Your task to perform on an android device: turn vacation reply on in the gmail app Image 0: 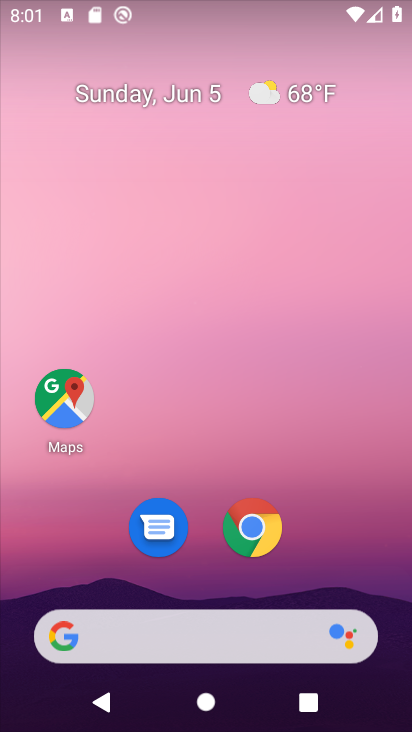
Step 0: drag from (206, 599) to (254, 74)
Your task to perform on an android device: turn vacation reply on in the gmail app Image 1: 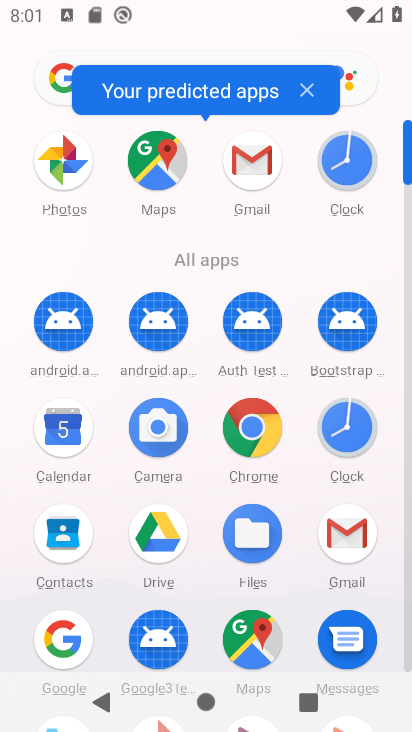
Step 1: click (260, 164)
Your task to perform on an android device: turn vacation reply on in the gmail app Image 2: 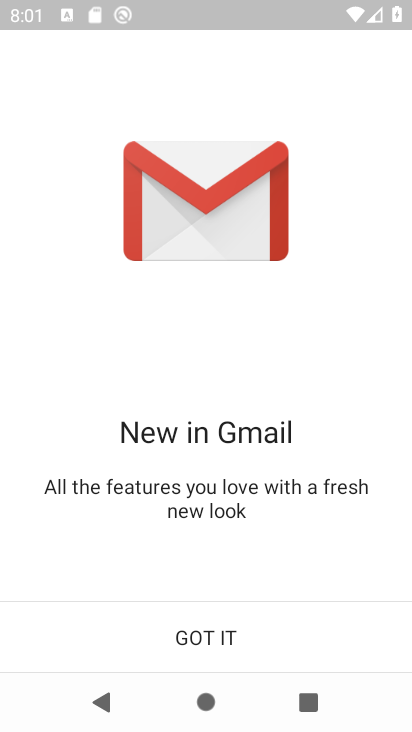
Step 2: click (169, 651)
Your task to perform on an android device: turn vacation reply on in the gmail app Image 3: 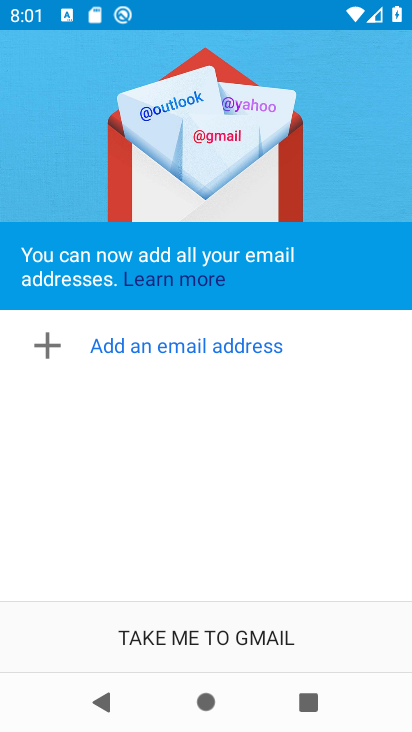
Step 3: click (169, 651)
Your task to perform on an android device: turn vacation reply on in the gmail app Image 4: 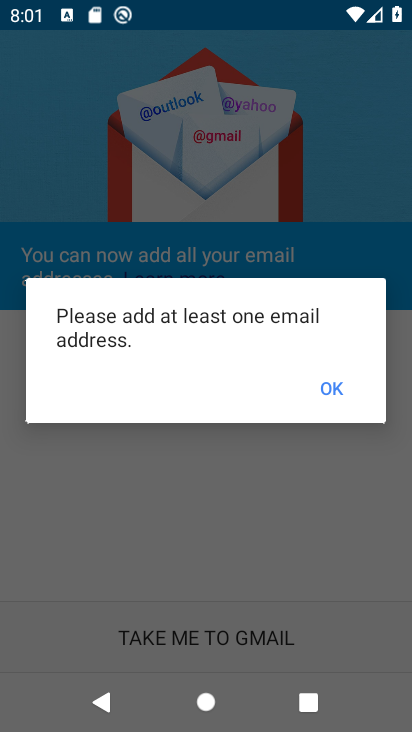
Step 4: click (326, 383)
Your task to perform on an android device: turn vacation reply on in the gmail app Image 5: 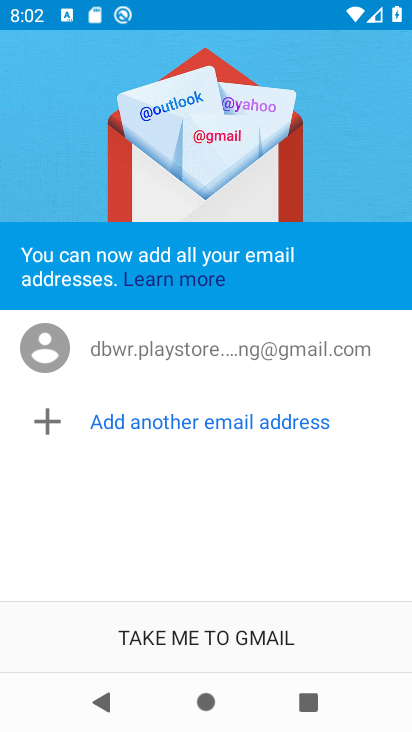
Step 5: click (151, 640)
Your task to perform on an android device: turn vacation reply on in the gmail app Image 6: 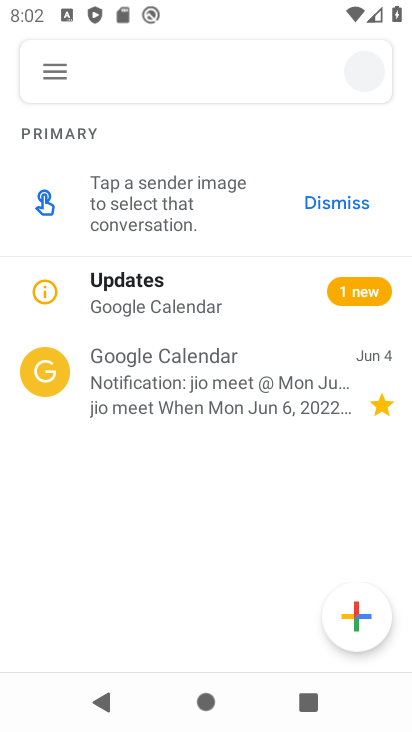
Step 6: click (60, 55)
Your task to perform on an android device: turn vacation reply on in the gmail app Image 7: 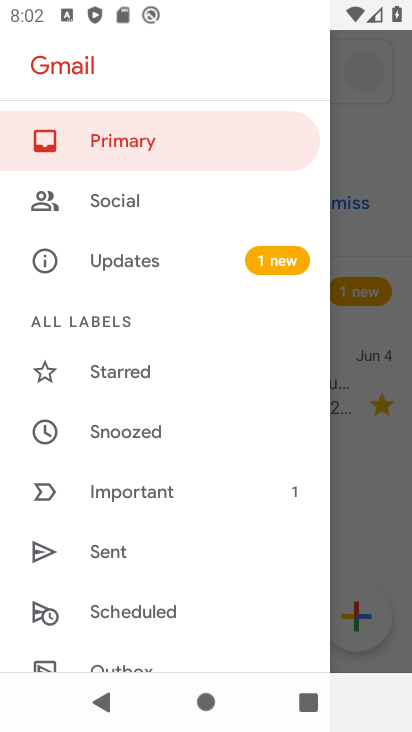
Step 7: drag from (105, 626) to (203, 25)
Your task to perform on an android device: turn vacation reply on in the gmail app Image 8: 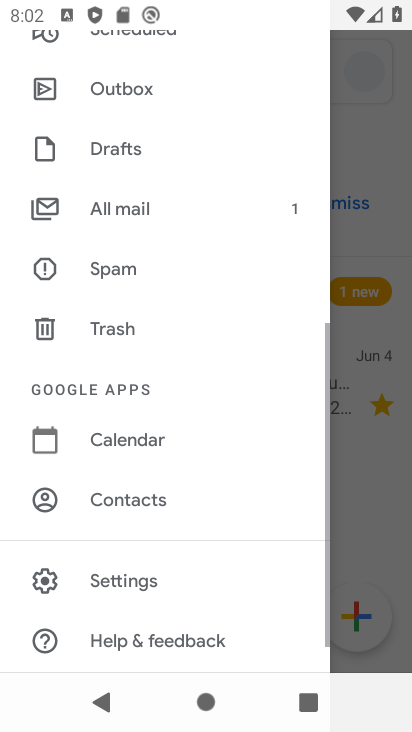
Step 8: click (89, 555)
Your task to perform on an android device: turn vacation reply on in the gmail app Image 9: 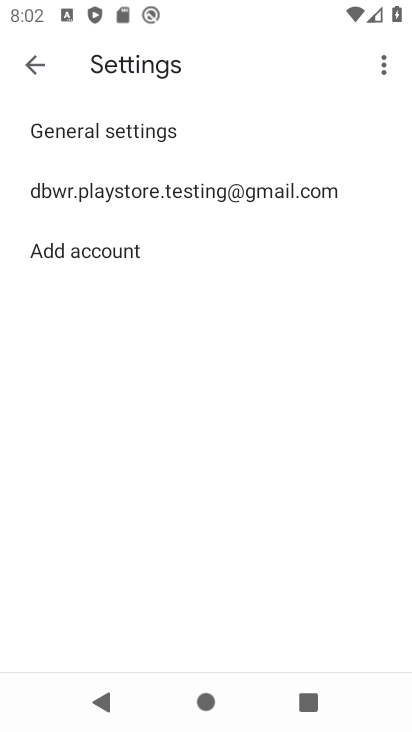
Step 9: click (232, 185)
Your task to perform on an android device: turn vacation reply on in the gmail app Image 10: 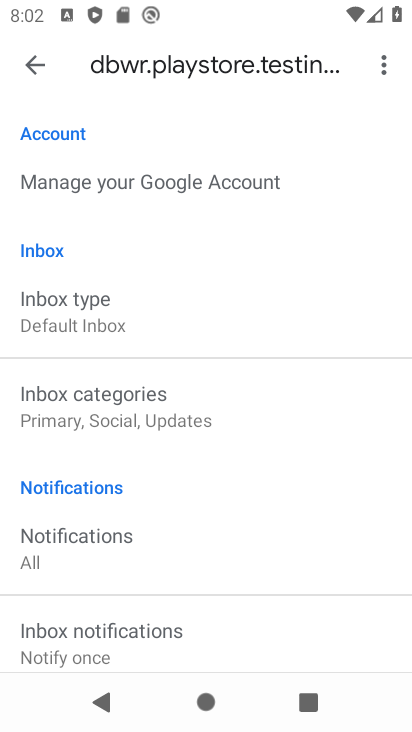
Step 10: drag from (136, 663) to (288, 75)
Your task to perform on an android device: turn vacation reply on in the gmail app Image 11: 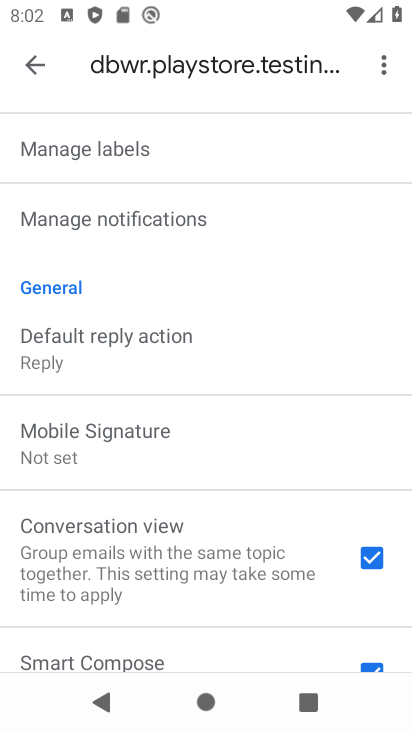
Step 11: drag from (101, 645) to (211, 146)
Your task to perform on an android device: turn vacation reply on in the gmail app Image 12: 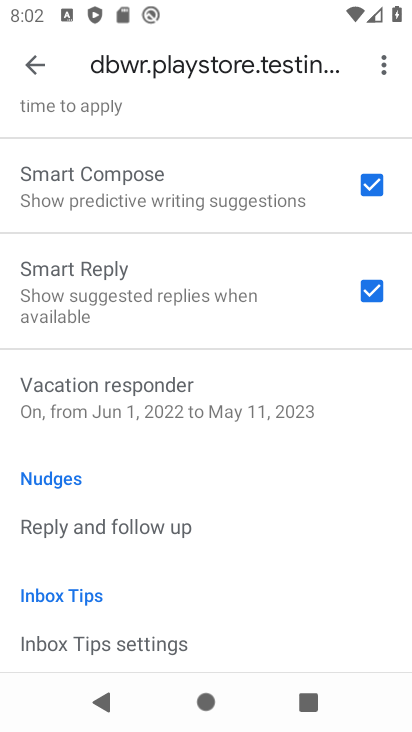
Step 12: drag from (112, 667) to (339, 183)
Your task to perform on an android device: turn vacation reply on in the gmail app Image 13: 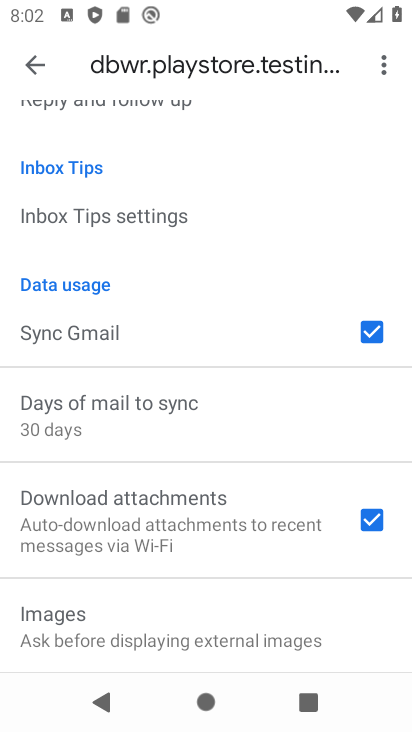
Step 13: drag from (156, 559) to (159, 29)
Your task to perform on an android device: turn vacation reply on in the gmail app Image 14: 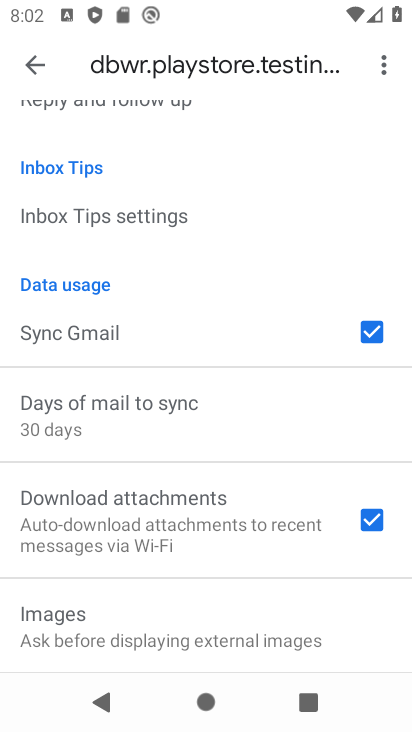
Step 14: drag from (180, 109) to (199, 482)
Your task to perform on an android device: turn vacation reply on in the gmail app Image 15: 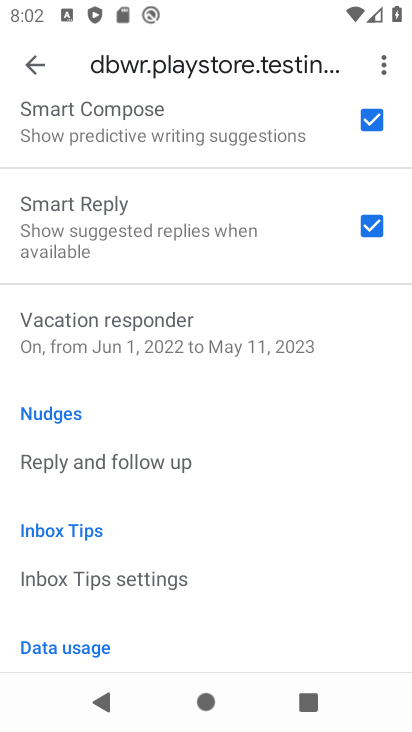
Step 15: click (176, 316)
Your task to perform on an android device: turn vacation reply on in the gmail app Image 16: 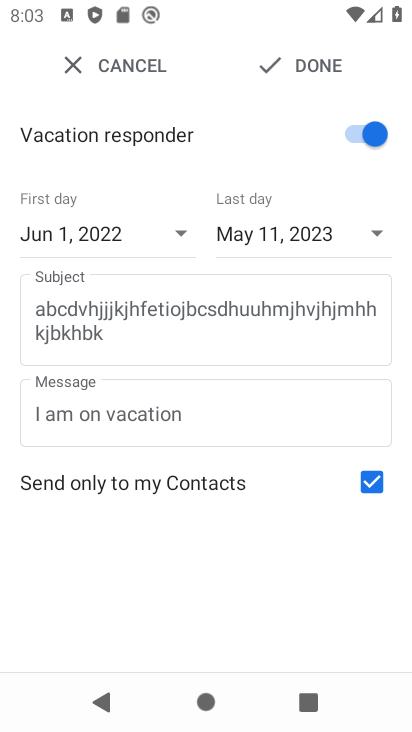
Step 16: task complete